Your task to perform on an android device: check data usage Image 0: 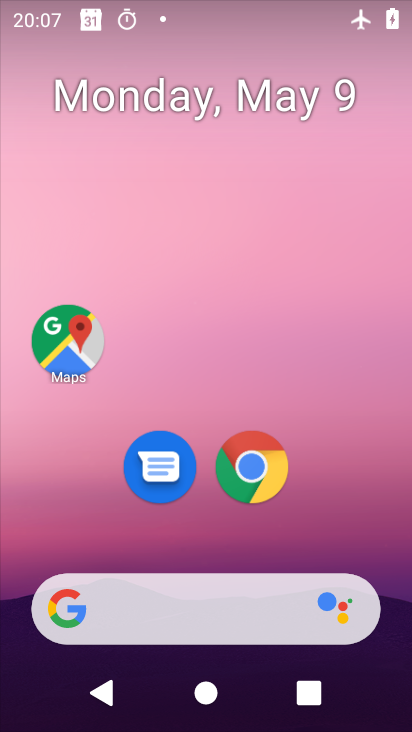
Step 0: drag from (364, 498) to (337, 135)
Your task to perform on an android device: check data usage Image 1: 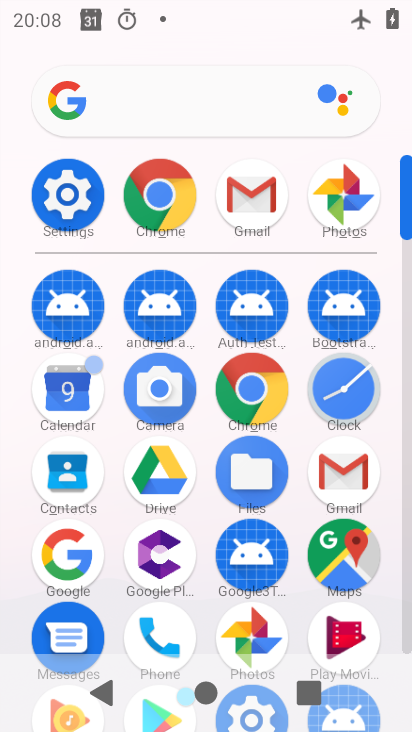
Step 1: click (58, 183)
Your task to perform on an android device: check data usage Image 2: 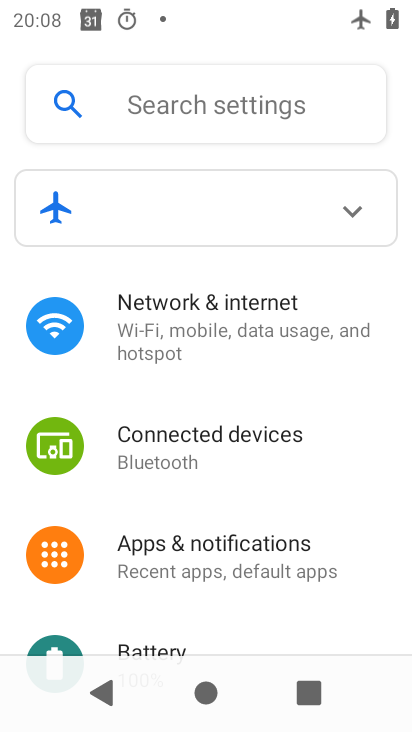
Step 2: click (195, 320)
Your task to perform on an android device: check data usage Image 3: 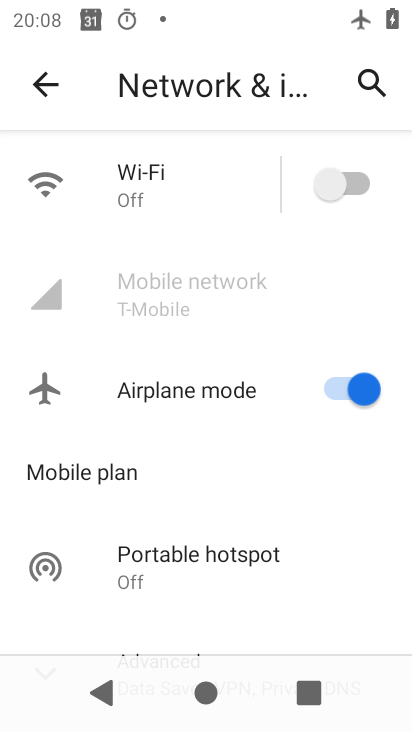
Step 3: click (182, 186)
Your task to perform on an android device: check data usage Image 4: 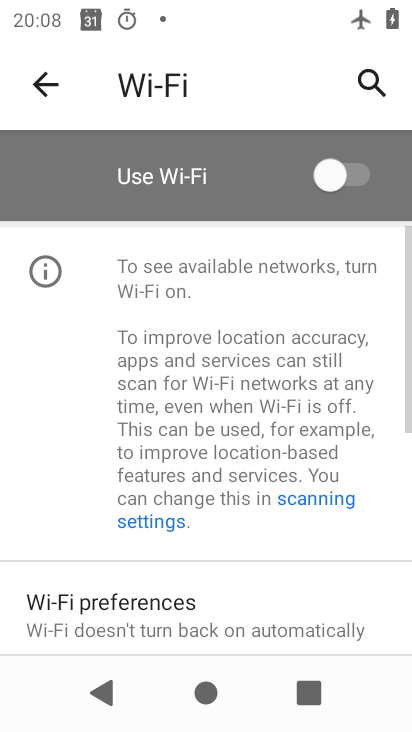
Step 4: drag from (183, 518) to (281, 29)
Your task to perform on an android device: check data usage Image 5: 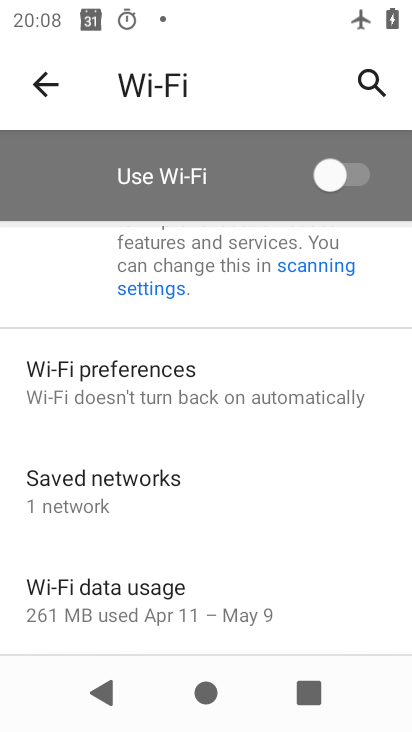
Step 5: drag from (175, 500) to (228, 240)
Your task to perform on an android device: check data usage Image 6: 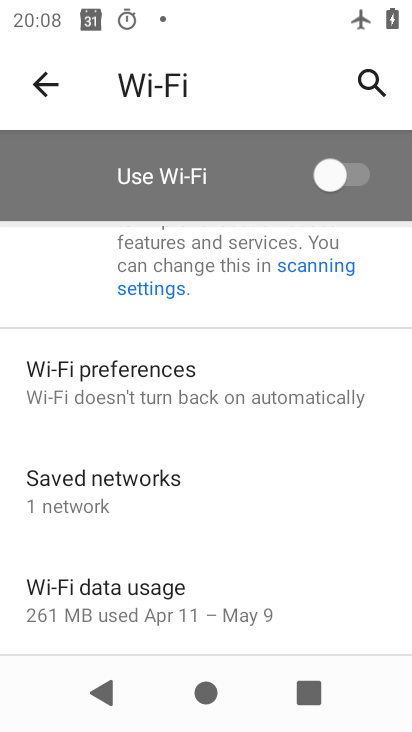
Step 6: click (148, 602)
Your task to perform on an android device: check data usage Image 7: 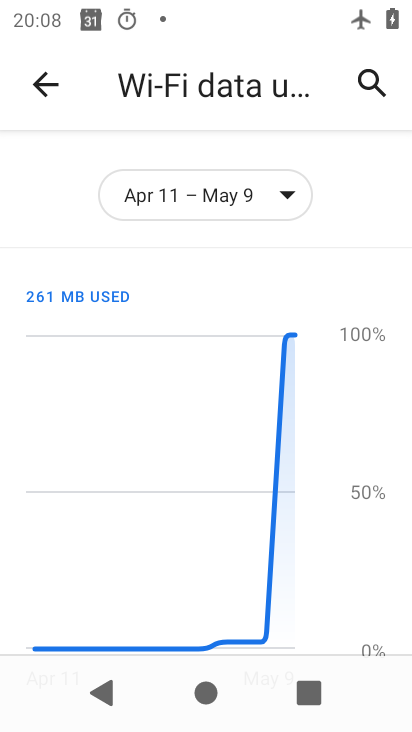
Step 7: task complete